Your task to perform on an android device: open a bookmark in the chrome app Image 0: 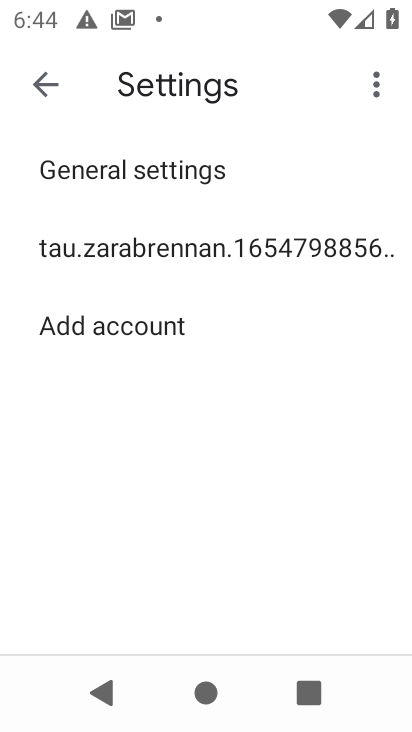
Step 0: press home button
Your task to perform on an android device: open a bookmark in the chrome app Image 1: 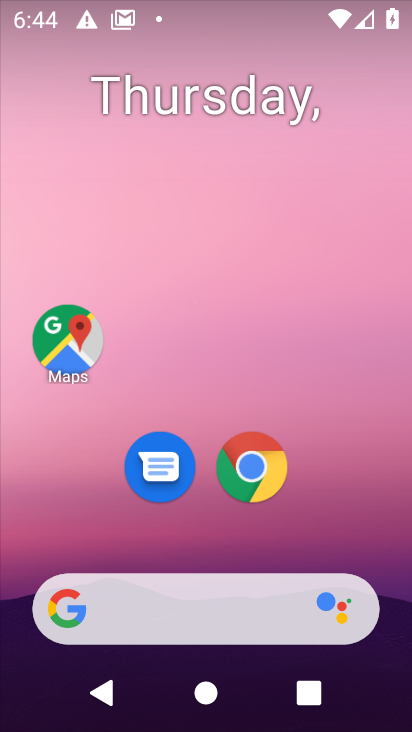
Step 1: task complete